Your task to perform on an android device: turn off notifications settings in the gmail app Image 0: 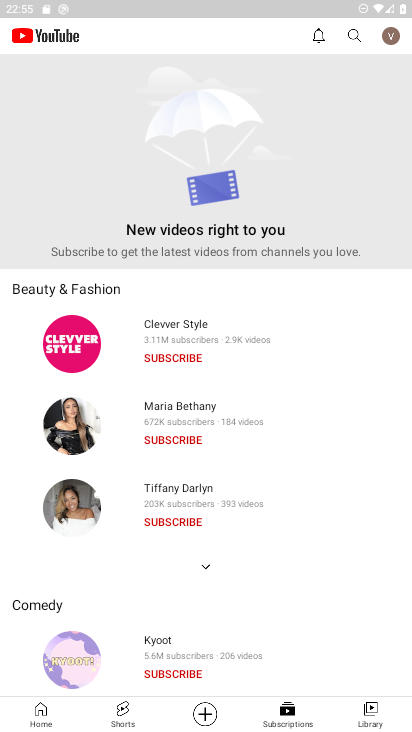
Step 0: press home button
Your task to perform on an android device: turn off notifications settings in the gmail app Image 1: 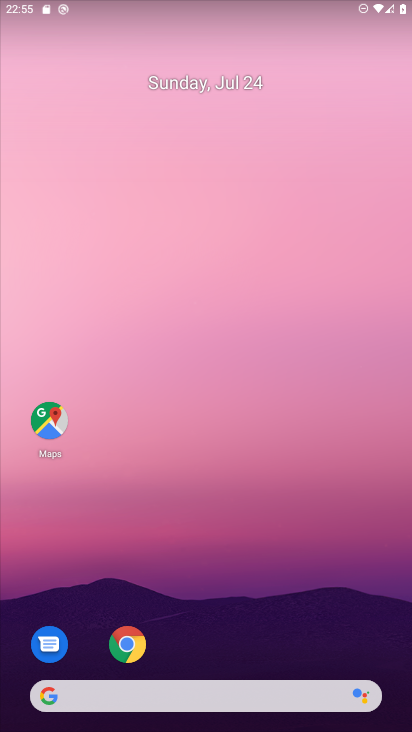
Step 1: drag from (365, 634) to (358, 138)
Your task to perform on an android device: turn off notifications settings in the gmail app Image 2: 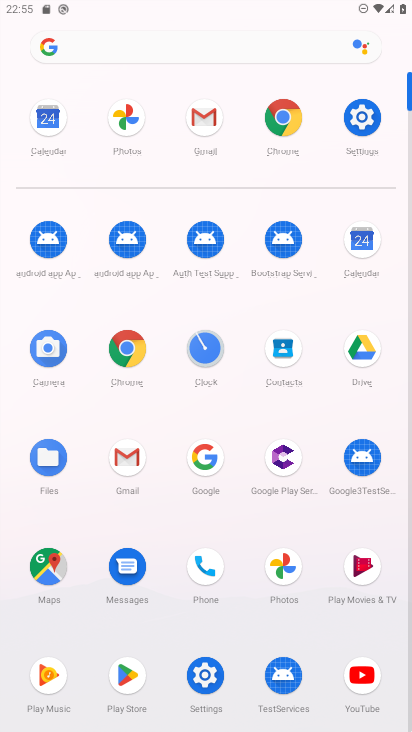
Step 2: click (126, 456)
Your task to perform on an android device: turn off notifications settings in the gmail app Image 3: 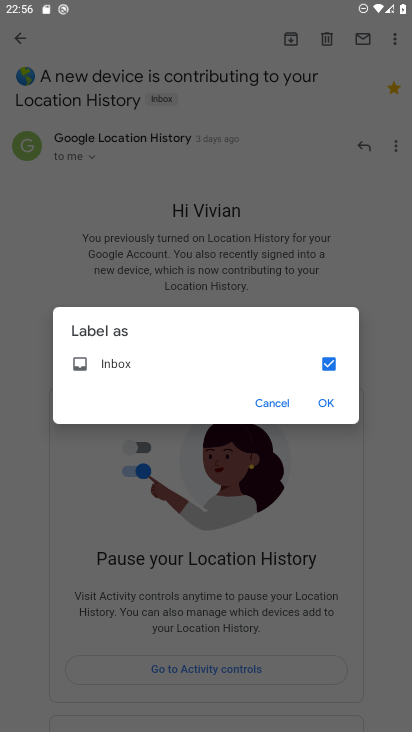
Step 3: press back button
Your task to perform on an android device: turn off notifications settings in the gmail app Image 4: 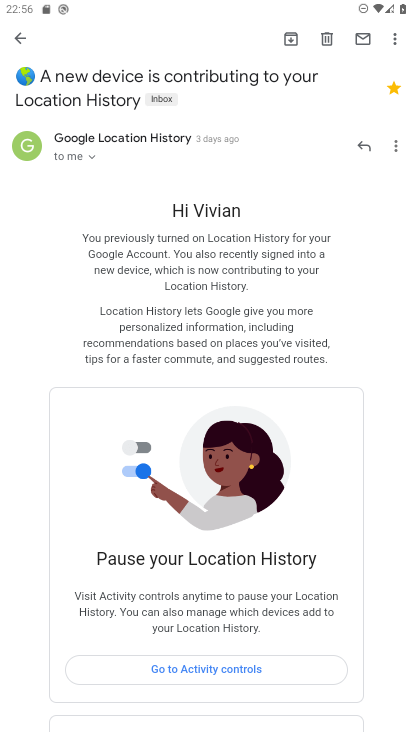
Step 4: press back button
Your task to perform on an android device: turn off notifications settings in the gmail app Image 5: 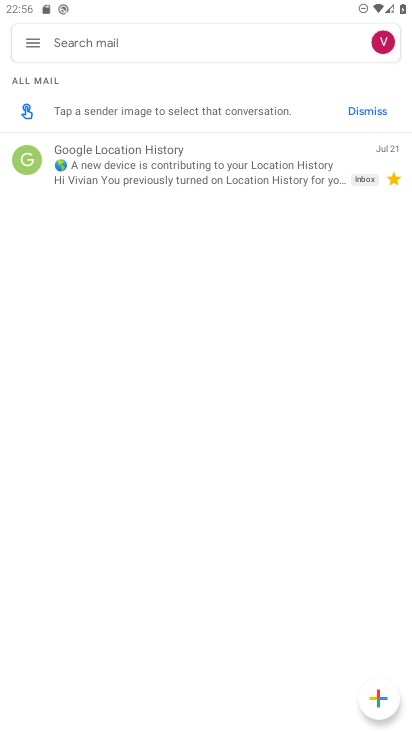
Step 5: click (29, 46)
Your task to perform on an android device: turn off notifications settings in the gmail app Image 6: 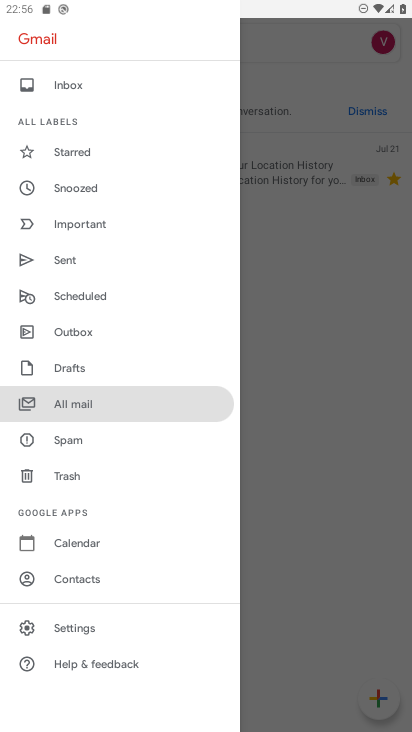
Step 6: click (82, 618)
Your task to perform on an android device: turn off notifications settings in the gmail app Image 7: 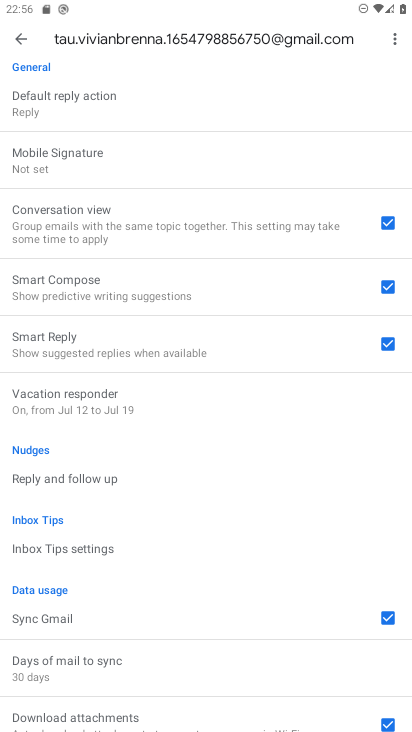
Step 7: drag from (251, 154) to (230, 657)
Your task to perform on an android device: turn off notifications settings in the gmail app Image 8: 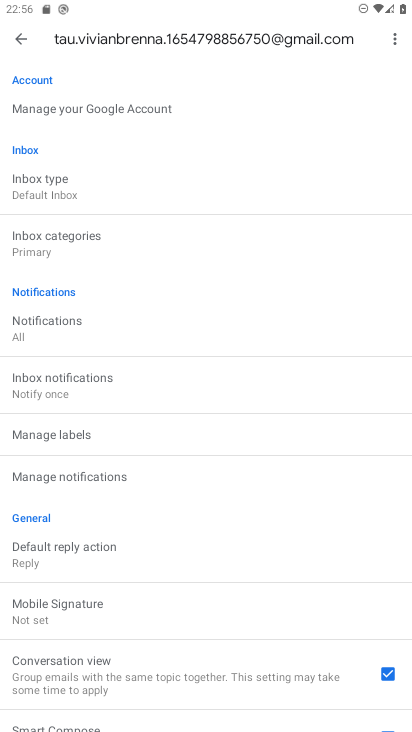
Step 8: click (76, 480)
Your task to perform on an android device: turn off notifications settings in the gmail app Image 9: 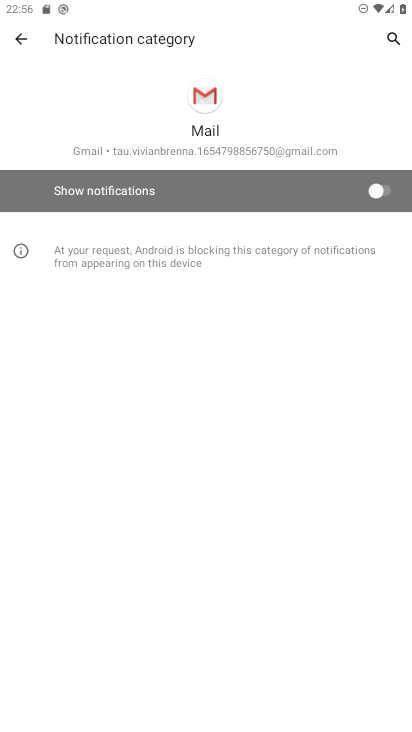
Step 9: task complete